Your task to perform on an android device: turn pop-ups on in chrome Image 0: 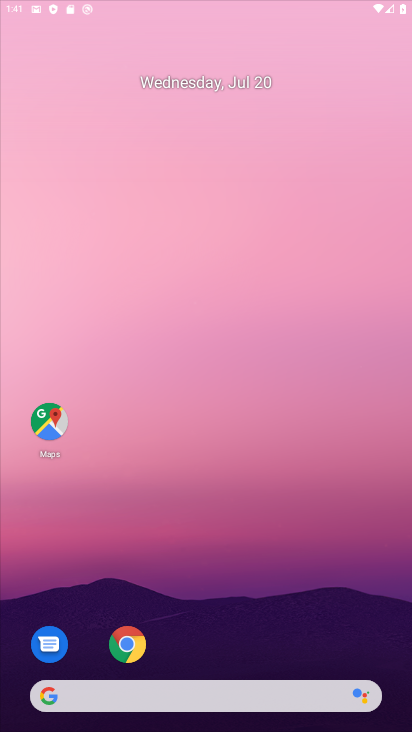
Step 0: drag from (310, 615) to (276, 5)
Your task to perform on an android device: turn pop-ups on in chrome Image 1: 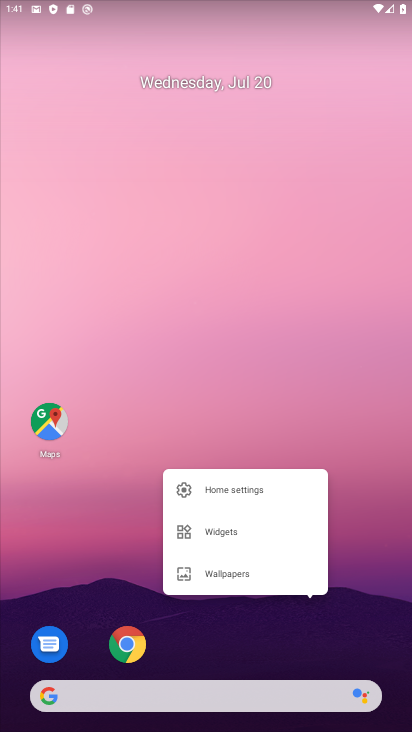
Step 1: click (311, 643)
Your task to perform on an android device: turn pop-ups on in chrome Image 2: 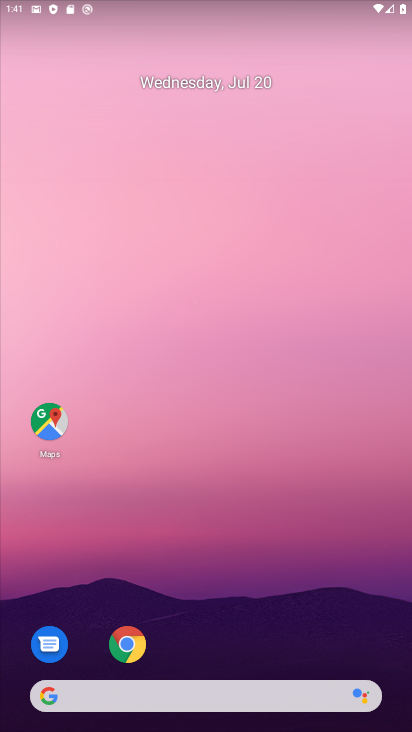
Step 2: drag from (344, 642) to (333, 50)
Your task to perform on an android device: turn pop-ups on in chrome Image 3: 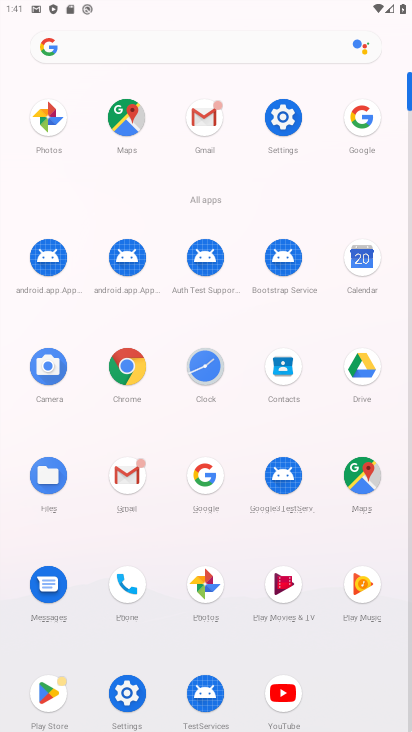
Step 3: click (144, 355)
Your task to perform on an android device: turn pop-ups on in chrome Image 4: 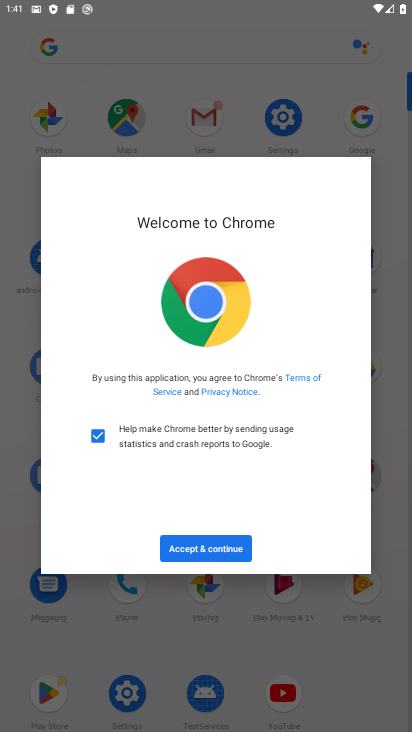
Step 4: click (181, 552)
Your task to perform on an android device: turn pop-ups on in chrome Image 5: 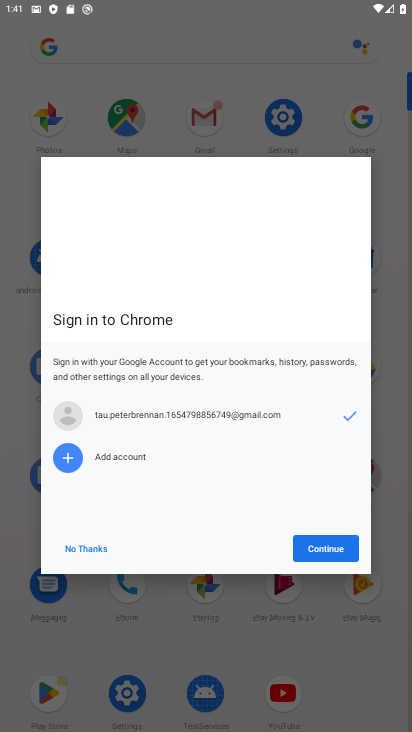
Step 5: click (307, 560)
Your task to perform on an android device: turn pop-ups on in chrome Image 6: 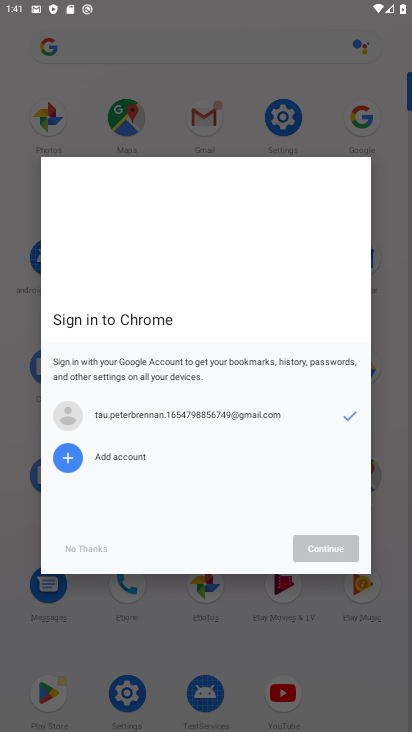
Step 6: click (307, 560)
Your task to perform on an android device: turn pop-ups on in chrome Image 7: 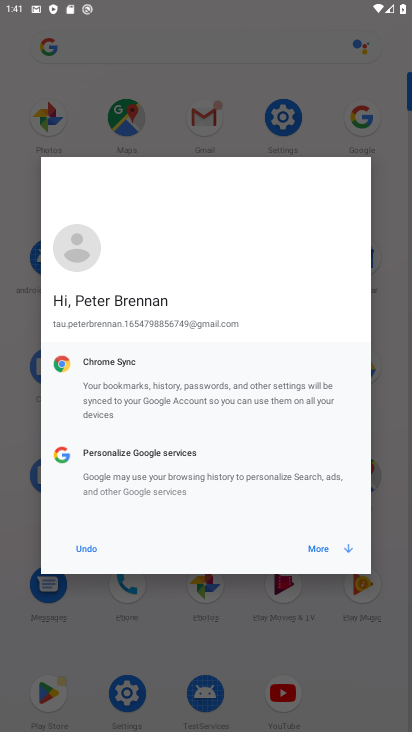
Step 7: click (307, 560)
Your task to perform on an android device: turn pop-ups on in chrome Image 8: 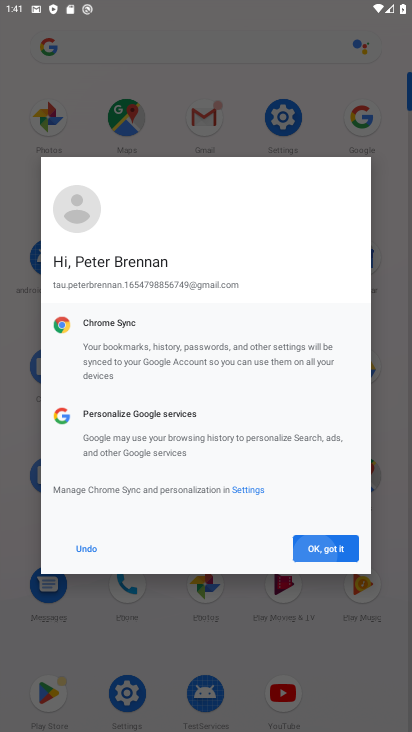
Step 8: click (307, 560)
Your task to perform on an android device: turn pop-ups on in chrome Image 9: 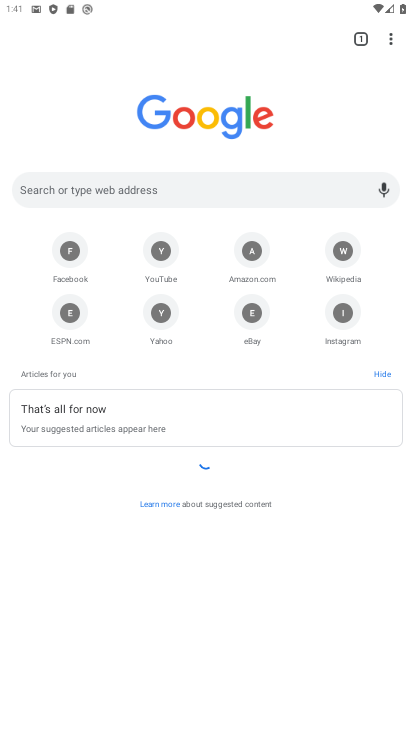
Step 9: drag from (393, 39) to (244, 331)
Your task to perform on an android device: turn pop-ups on in chrome Image 10: 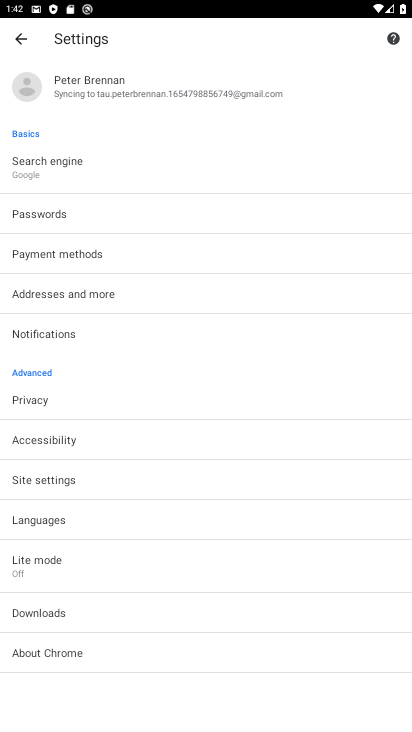
Step 10: click (48, 478)
Your task to perform on an android device: turn pop-ups on in chrome Image 11: 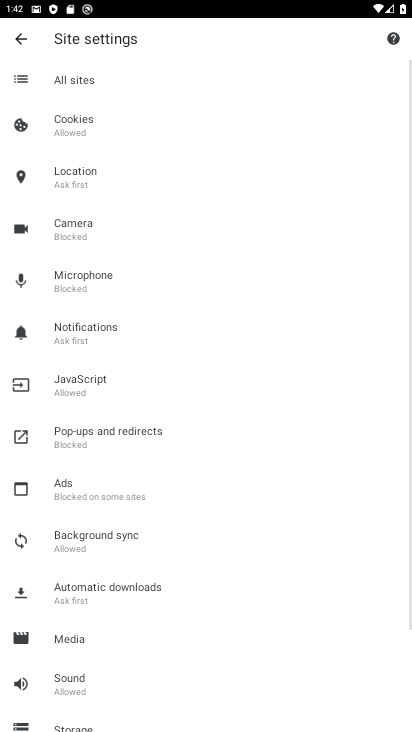
Step 11: click (44, 444)
Your task to perform on an android device: turn pop-ups on in chrome Image 12: 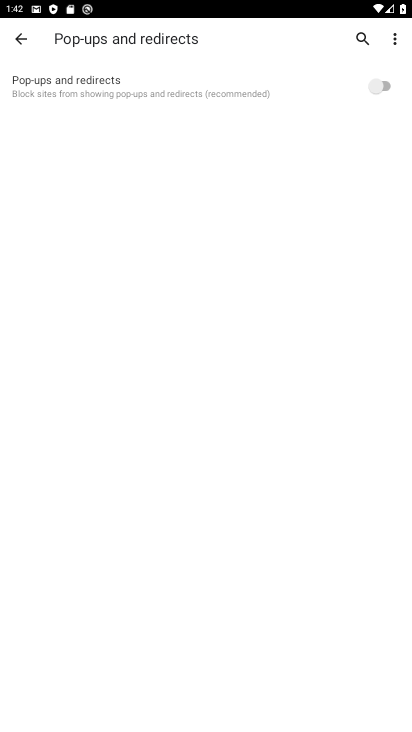
Step 12: click (316, 86)
Your task to perform on an android device: turn pop-ups on in chrome Image 13: 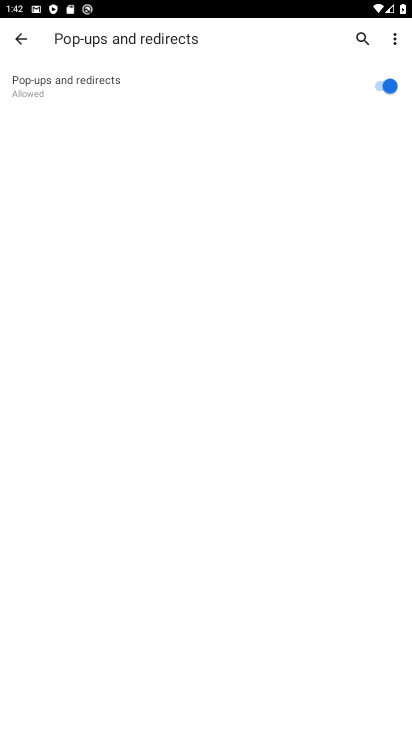
Step 13: task complete